Your task to perform on an android device: refresh tabs in the chrome app Image 0: 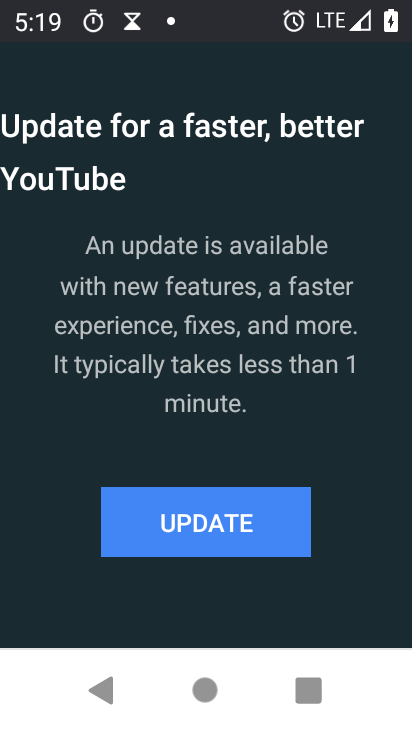
Step 0: press home button
Your task to perform on an android device: refresh tabs in the chrome app Image 1: 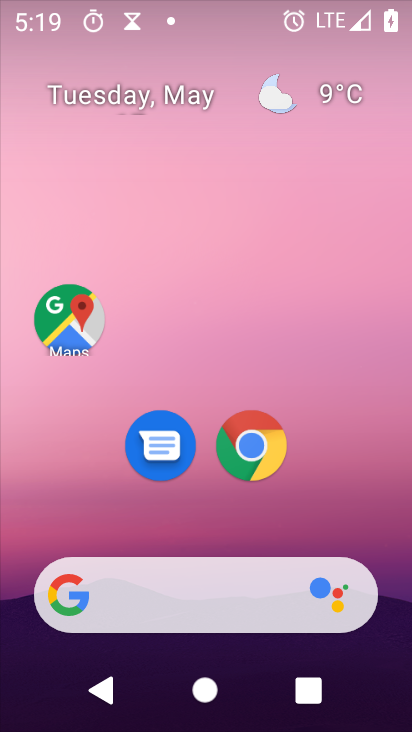
Step 1: drag from (335, 615) to (208, 47)
Your task to perform on an android device: refresh tabs in the chrome app Image 2: 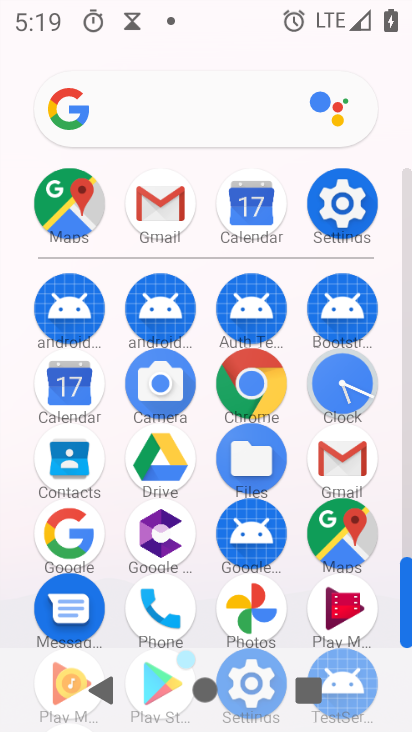
Step 2: click (243, 383)
Your task to perform on an android device: refresh tabs in the chrome app Image 3: 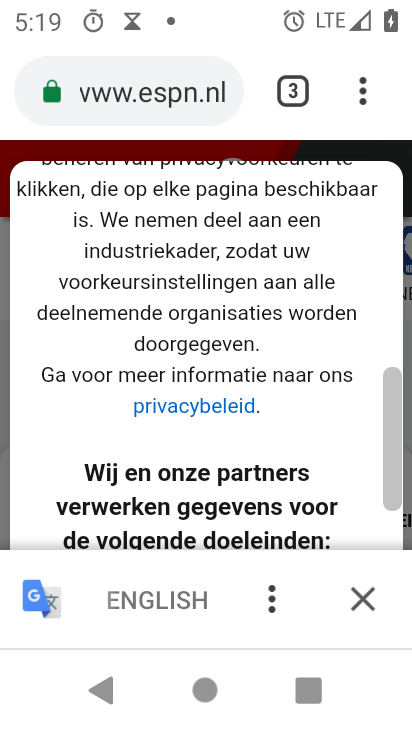
Step 3: task complete